Your task to perform on an android device: Open network settings Image 0: 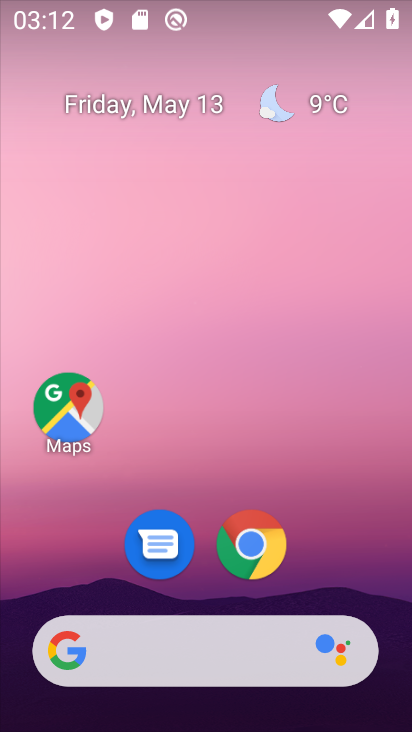
Step 0: drag from (324, 563) to (260, 44)
Your task to perform on an android device: Open network settings Image 1: 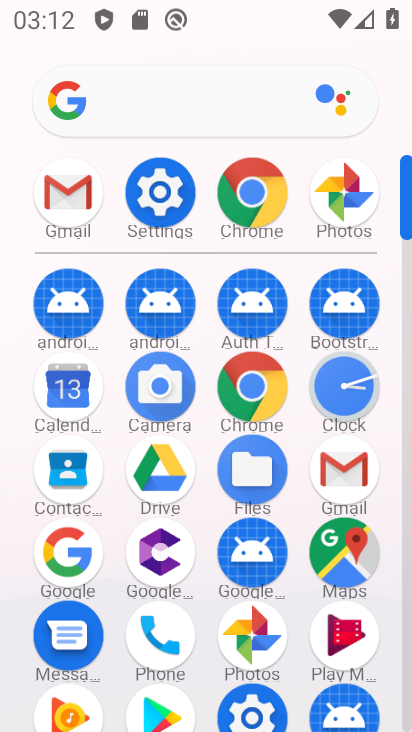
Step 1: drag from (16, 528) to (20, 284)
Your task to perform on an android device: Open network settings Image 2: 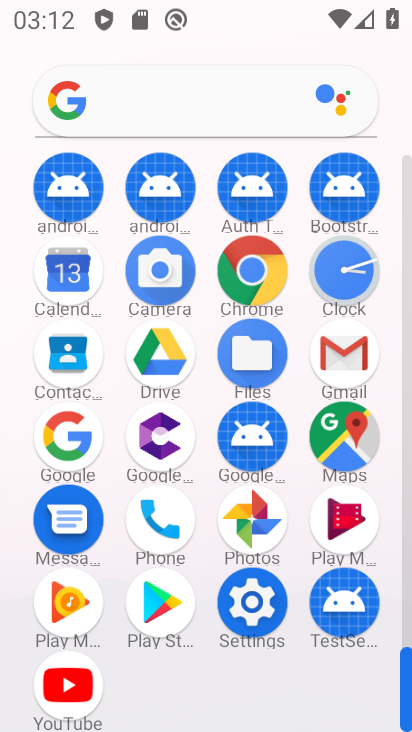
Step 2: drag from (30, 551) to (20, 325)
Your task to perform on an android device: Open network settings Image 3: 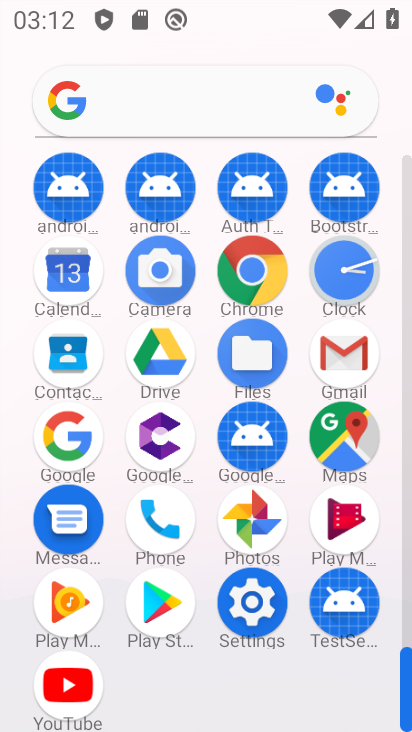
Step 3: click (253, 594)
Your task to perform on an android device: Open network settings Image 4: 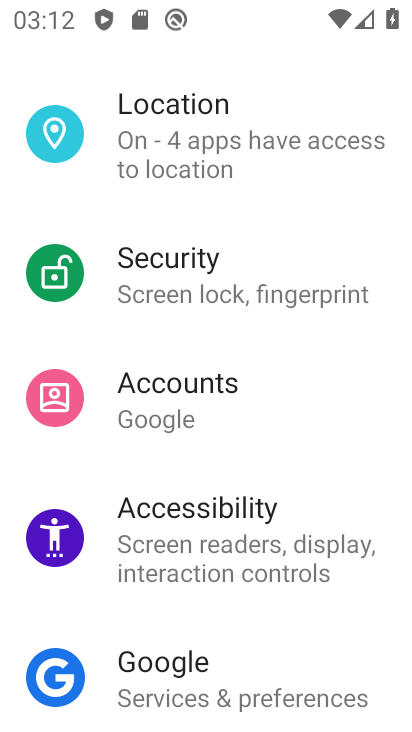
Step 4: drag from (285, 602) to (266, 161)
Your task to perform on an android device: Open network settings Image 5: 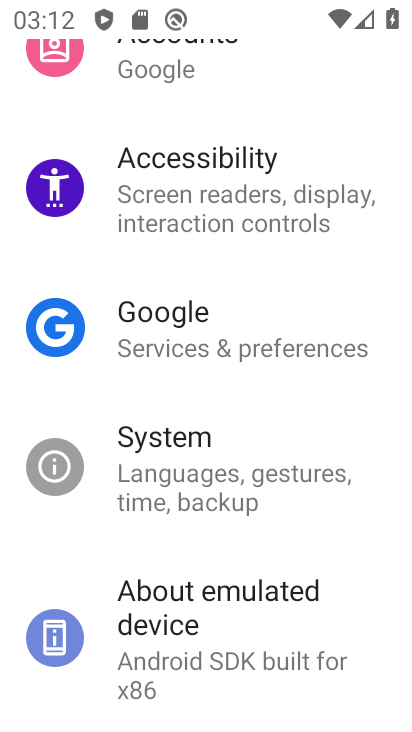
Step 5: drag from (295, 513) to (301, 212)
Your task to perform on an android device: Open network settings Image 6: 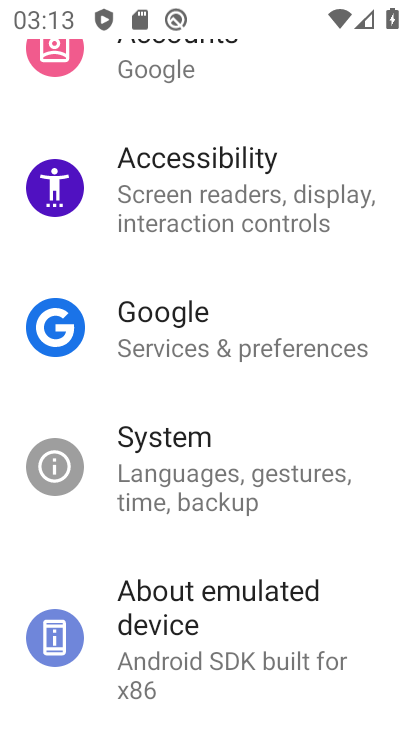
Step 6: drag from (305, 174) to (305, 608)
Your task to perform on an android device: Open network settings Image 7: 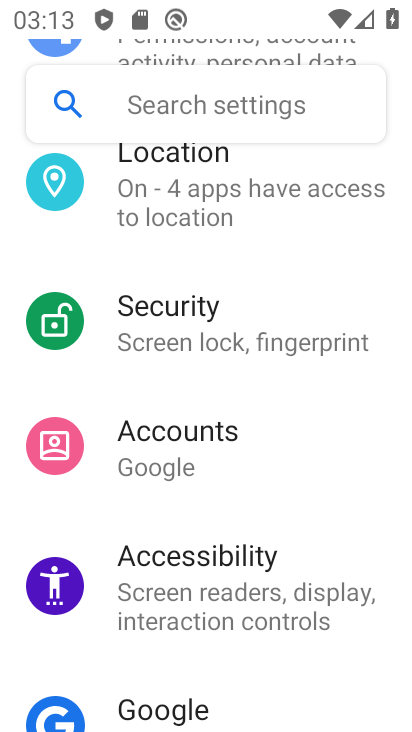
Step 7: drag from (292, 252) to (292, 582)
Your task to perform on an android device: Open network settings Image 8: 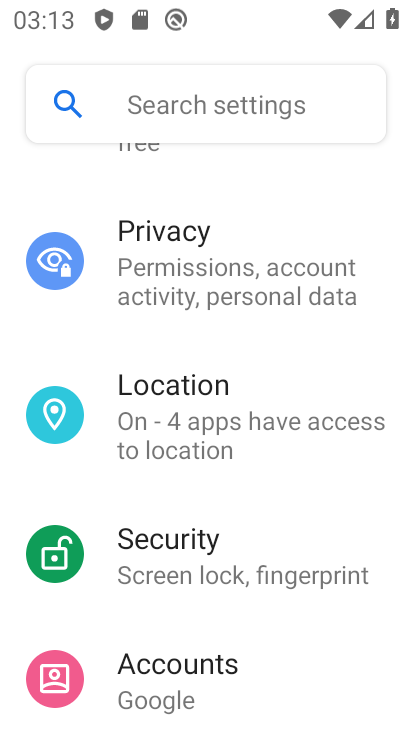
Step 8: drag from (279, 272) to (274, 643)
Your task to perform on an android device: Open network settings Image 9: 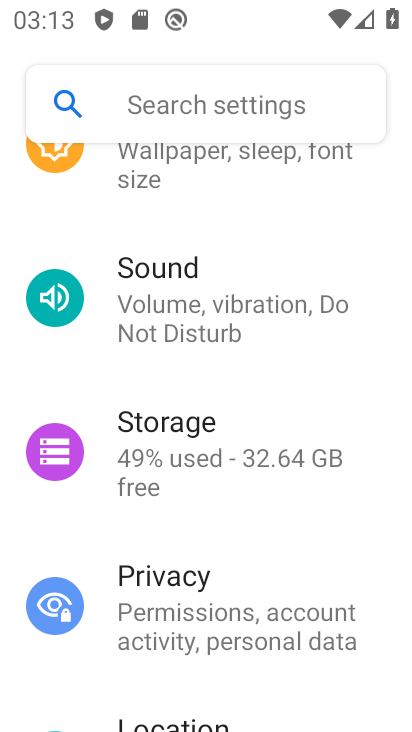
Step 9: drag from (290, 270) to (293, 596)
Your task to perform on an android device: Open network settings Image 10: 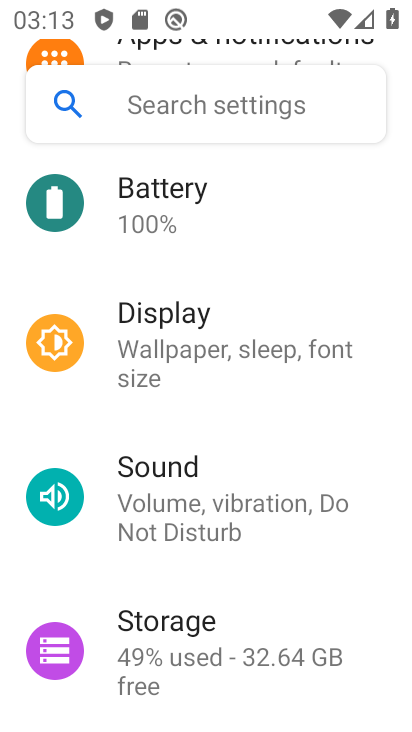
Step 10: drag from (285, 243) to (270, 619)
Your task to perform on an android device: Open network settings Image 11: 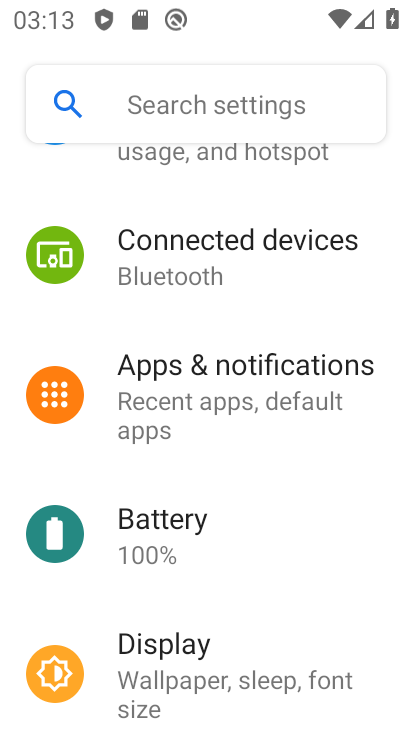
Step 11: drag from (290, 285) to (283, 628)
Your task to perform on an android device: Open network settings Image 12: 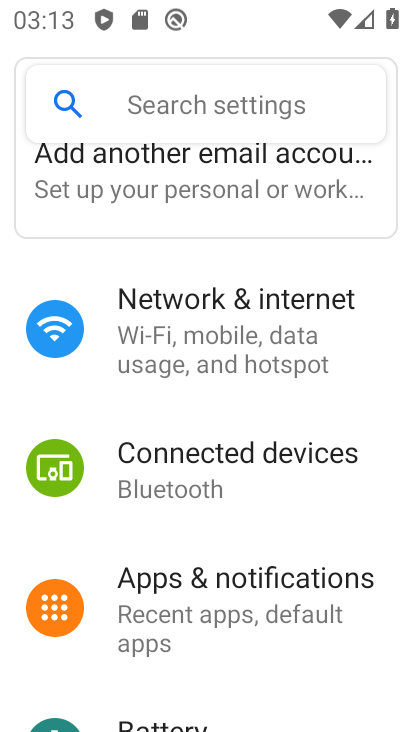
Step 12: click (258, 320)
Your task to perform on an android device: Open network settings Image 13: 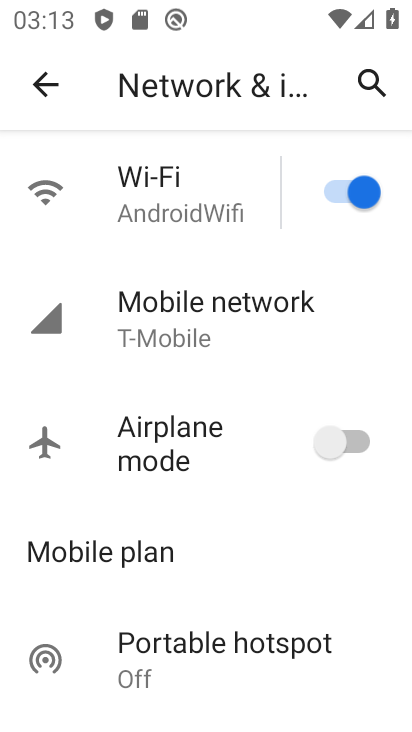
Step 13: click (200, 300)
Your task to perform on an android device: Open network settings Image 14: 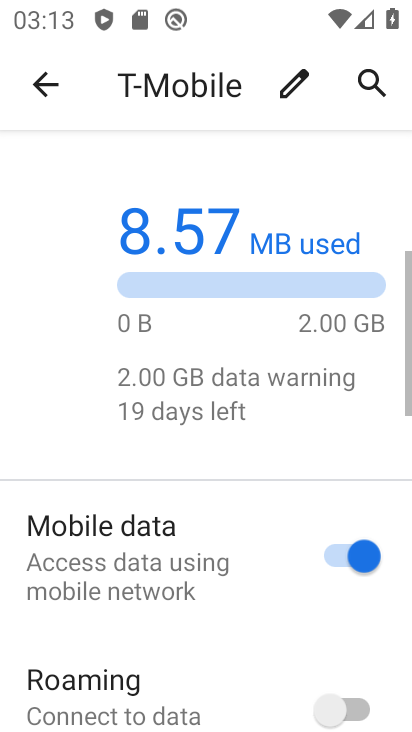
Step 14: click (52, 76)
Your task to perform on an android device: Open network settings Image 15: 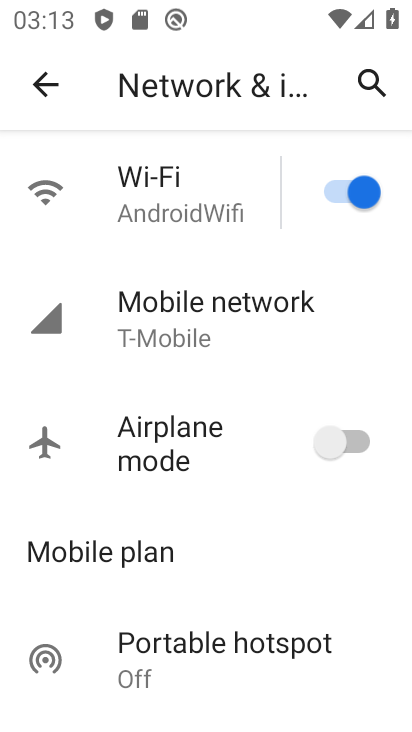
Step 15: task complete